Your task to perform on an android device: Go to battery settings Image 0: 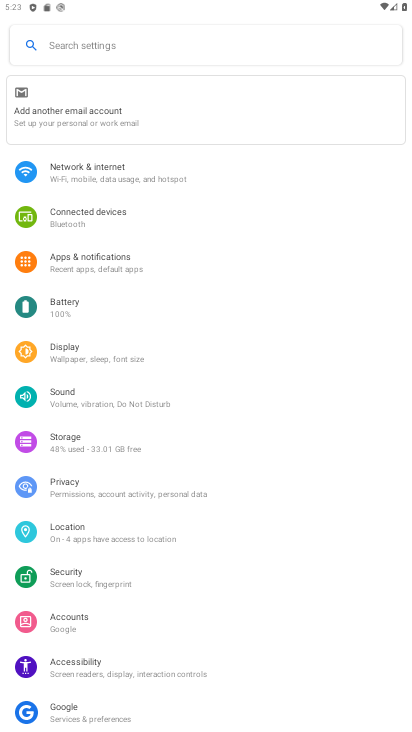
Step 0: press home button
Your task to perform on an android device: Go to battery settings Image 1: 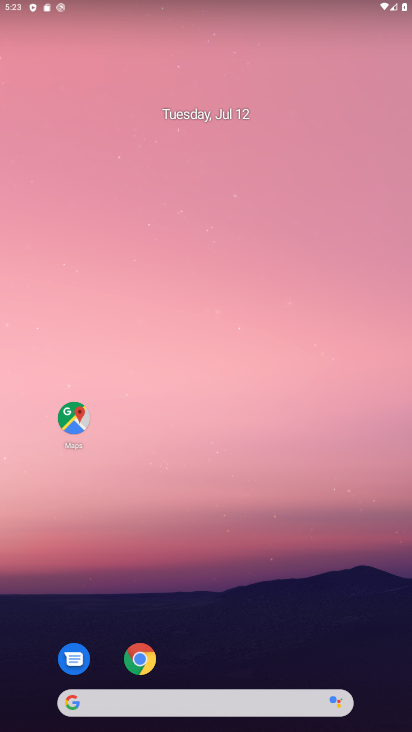
Step 1: drag from (205, 659) to (239, 3)
Your task to perform on an android device: Go to battery settings Image 2: 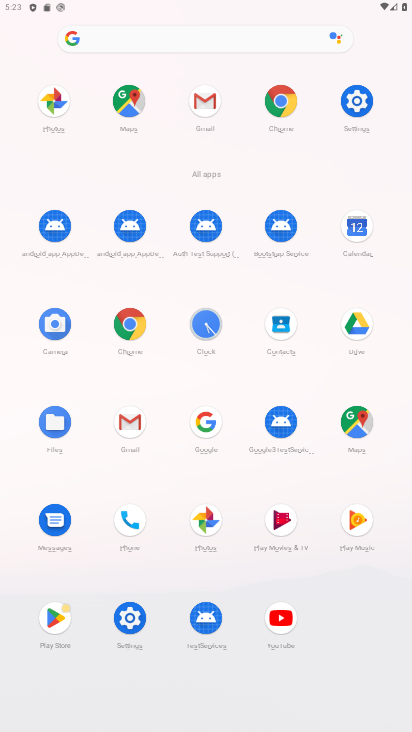
Step 2: click (131, 640)
Your task to perform on an android device: Go to battery settings Image 3: 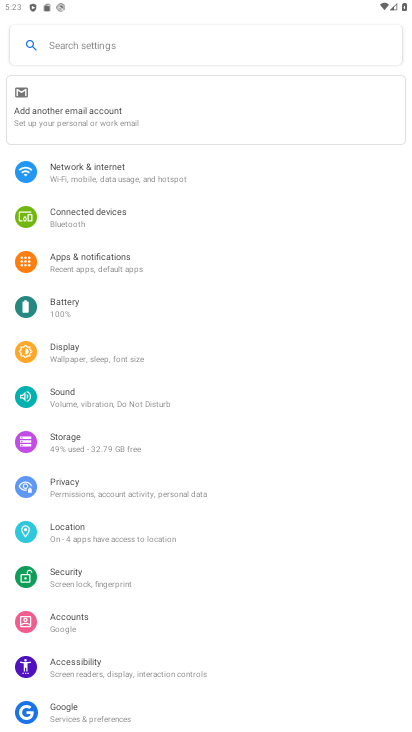
Step 3: click (87, 310)
Your task to perform on an android device: Go to battery settings Image 4: 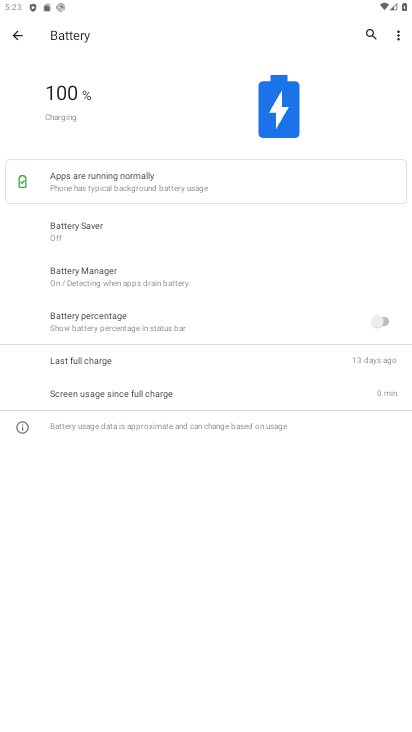
Step 4: task complete